Your task to perform on an android device: change the clock display to show seconds Image 0: 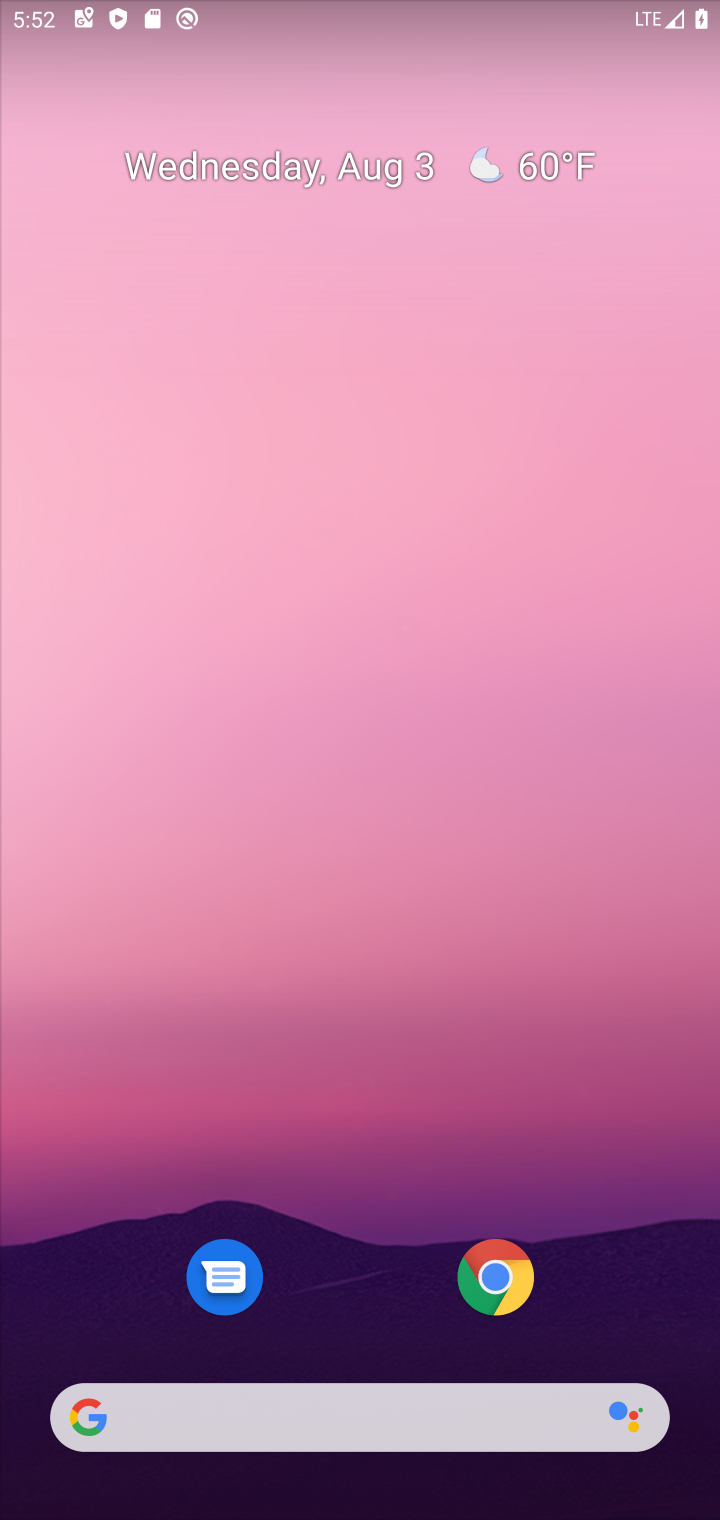
Step 0: drag from (287, 1140) to (487, 228)
Your task to perform on an android device: change the clock display to show seconds Image 1: 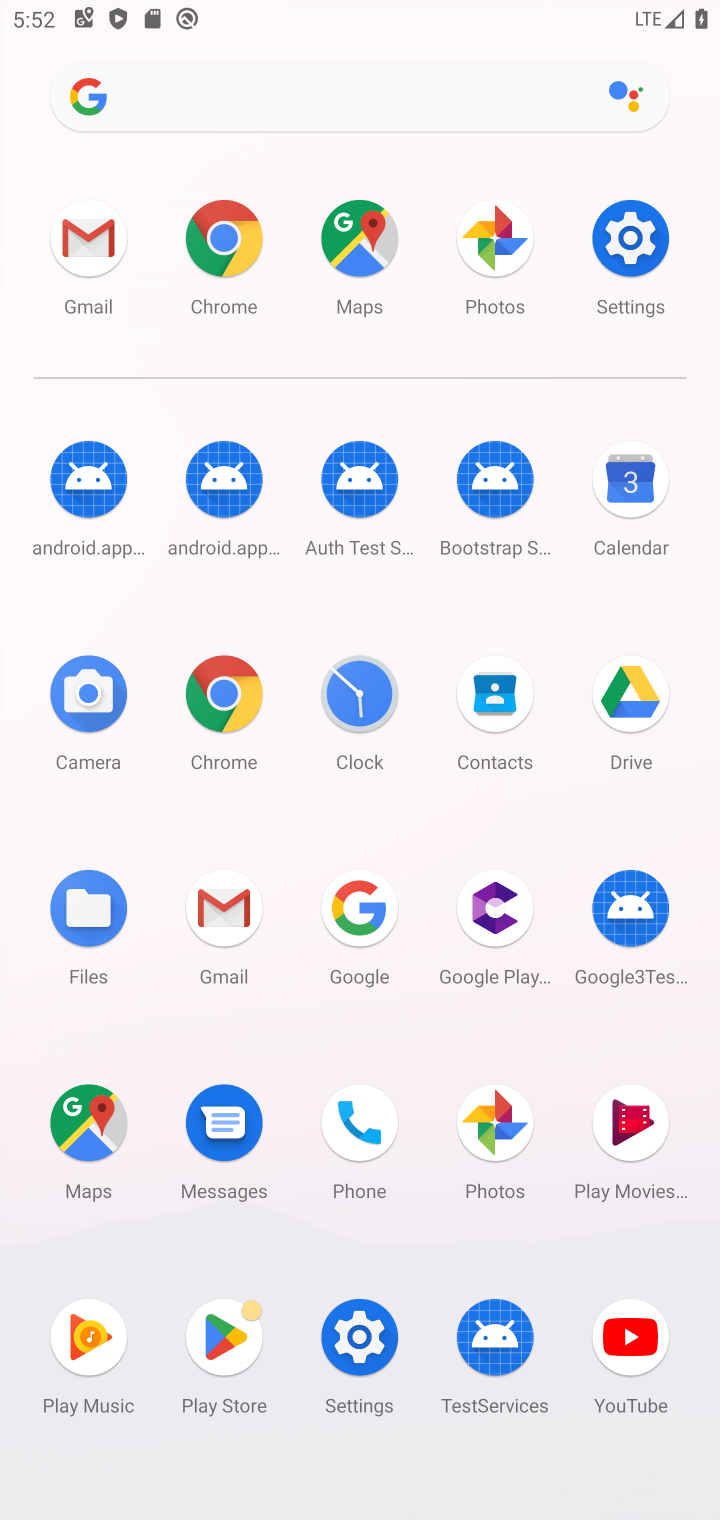
Step 1: click (377, 701)
Your task to perform on an android device: change the clock display to show seconds Image 2: 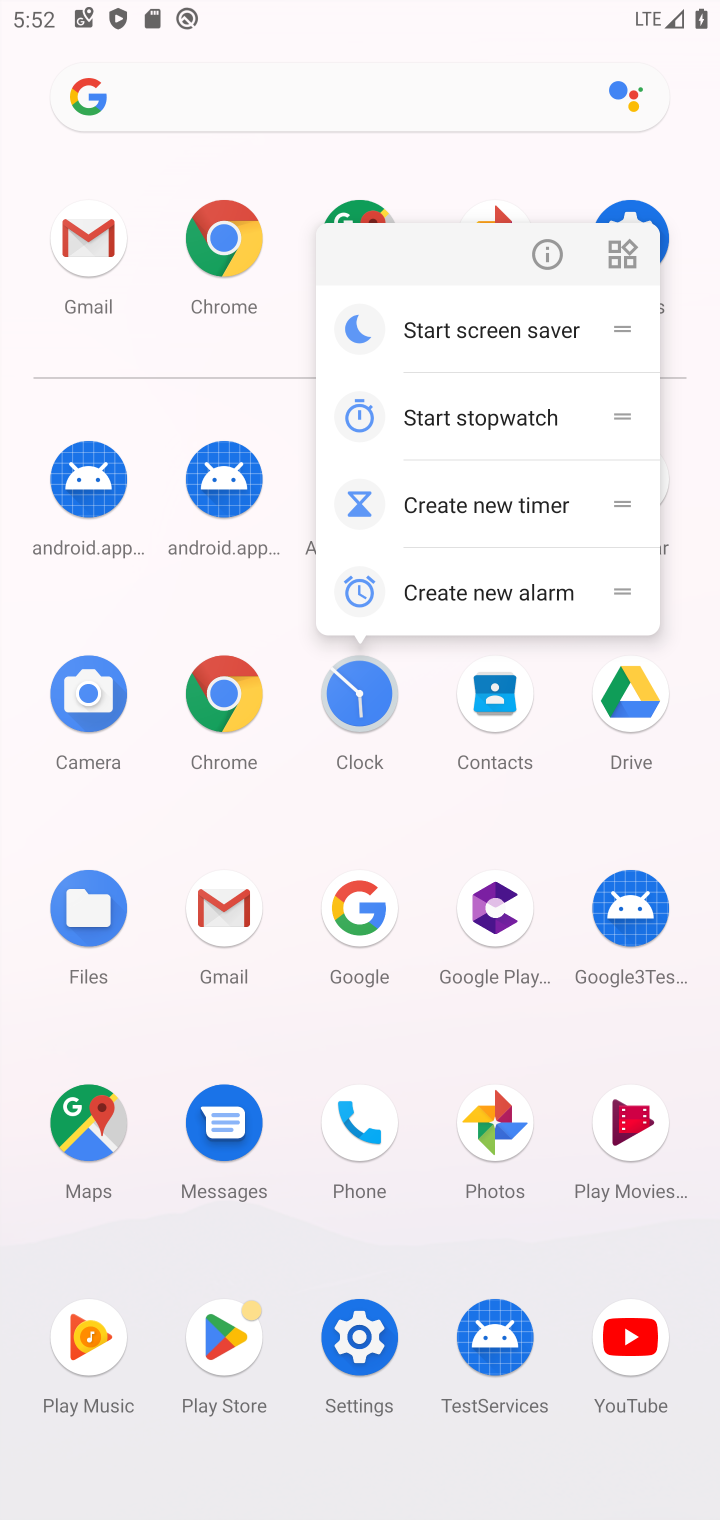
Step 2: click (392, 669)
Your task to perform on an android device: change the clock display to show seconds Image 3: 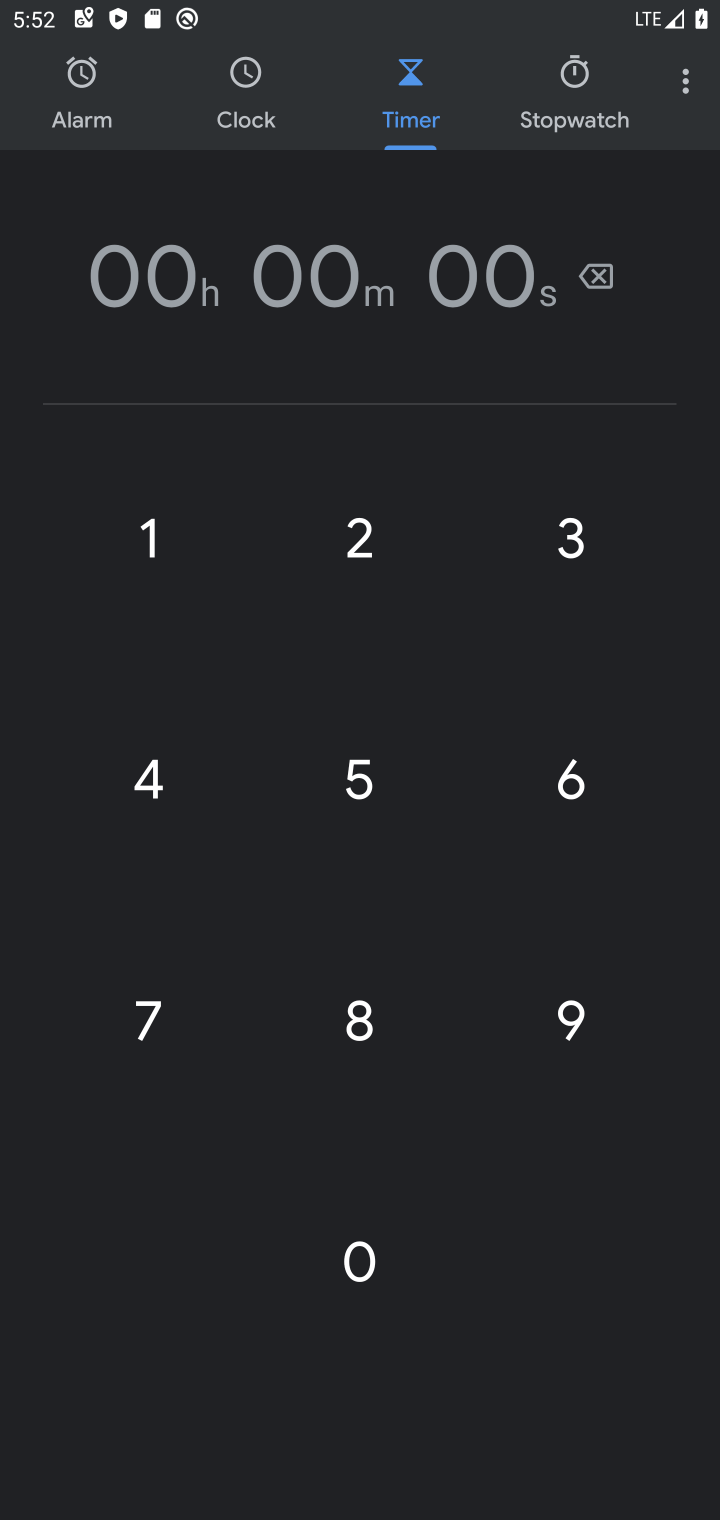
Step 3: click (691, 85)
Your task to perform on an android device: change the clock display to show seconds Image 4: 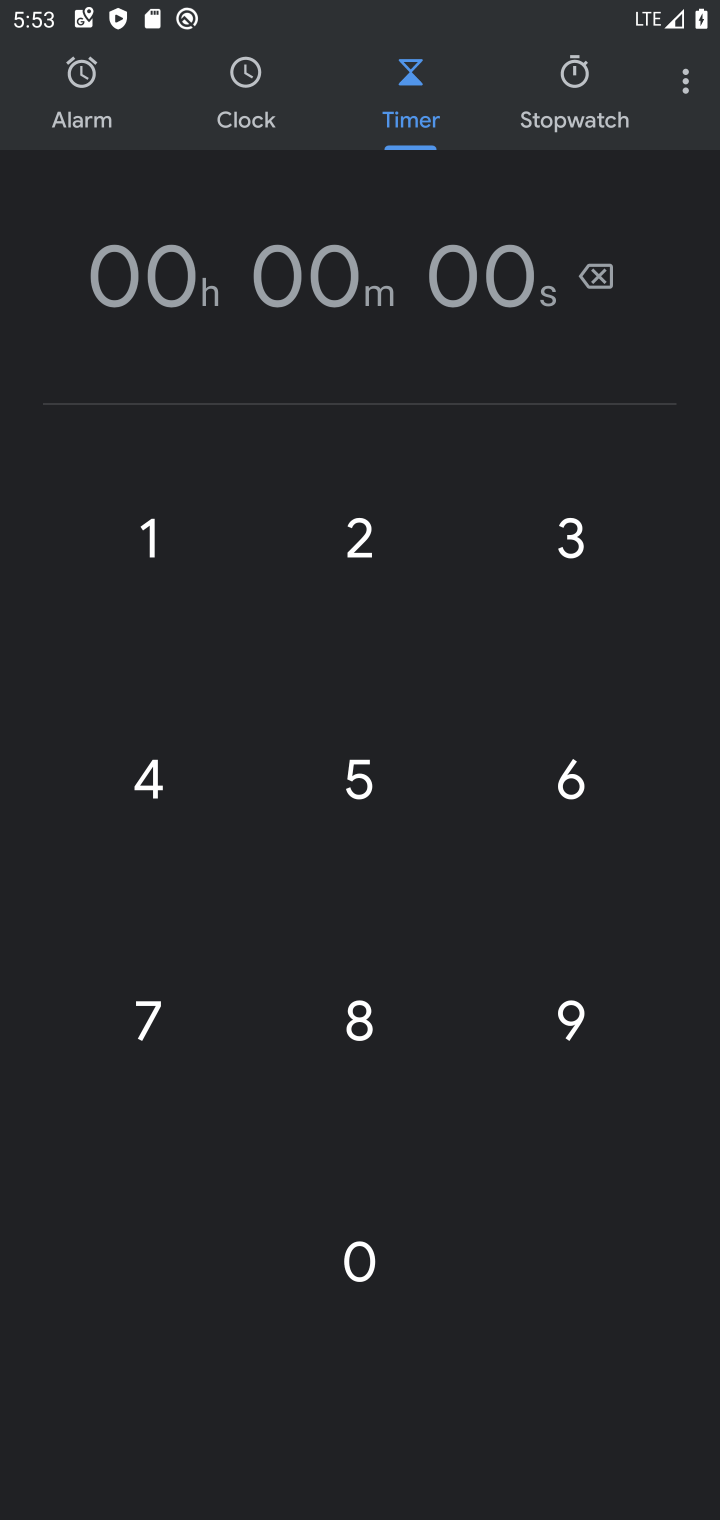
Step 4: click (680, 98)
Your task to perform on an android device: change the clock display to show seconds Image 5: 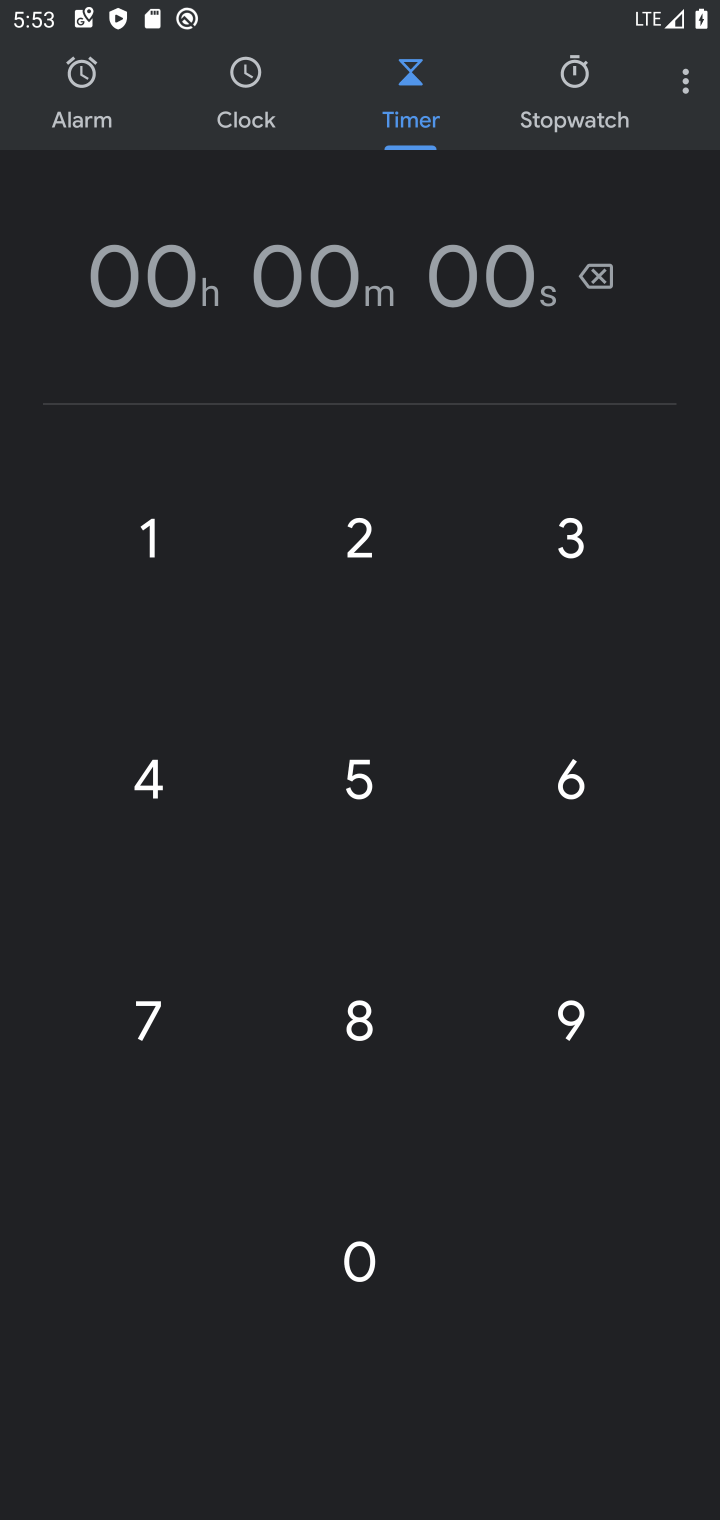
Step 5: click (687, 76)
Your task to perform on an android device: change the clock display to show seconds Image 6: 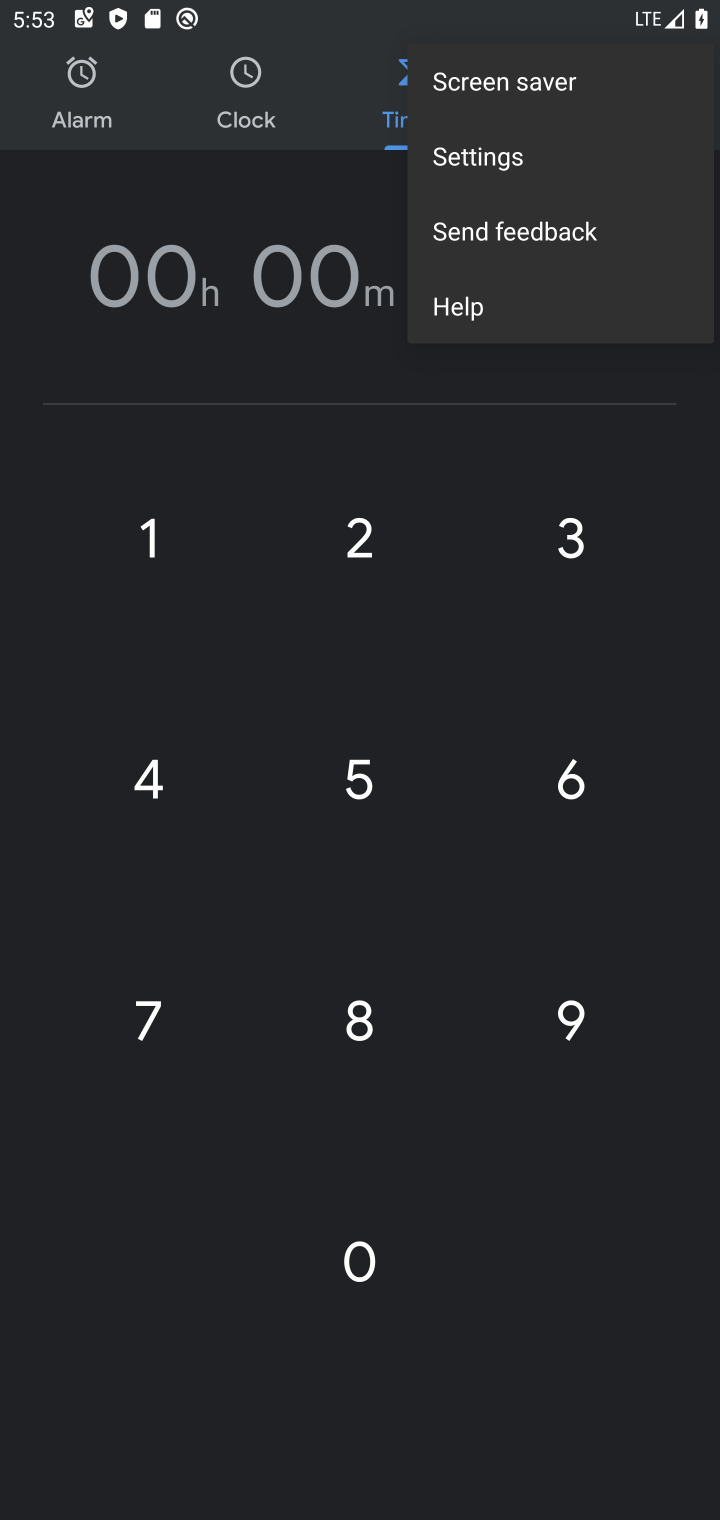
Step 6: click (523, 157)
Your task to perform on an android device: change the clock display to show seconds Image 7: 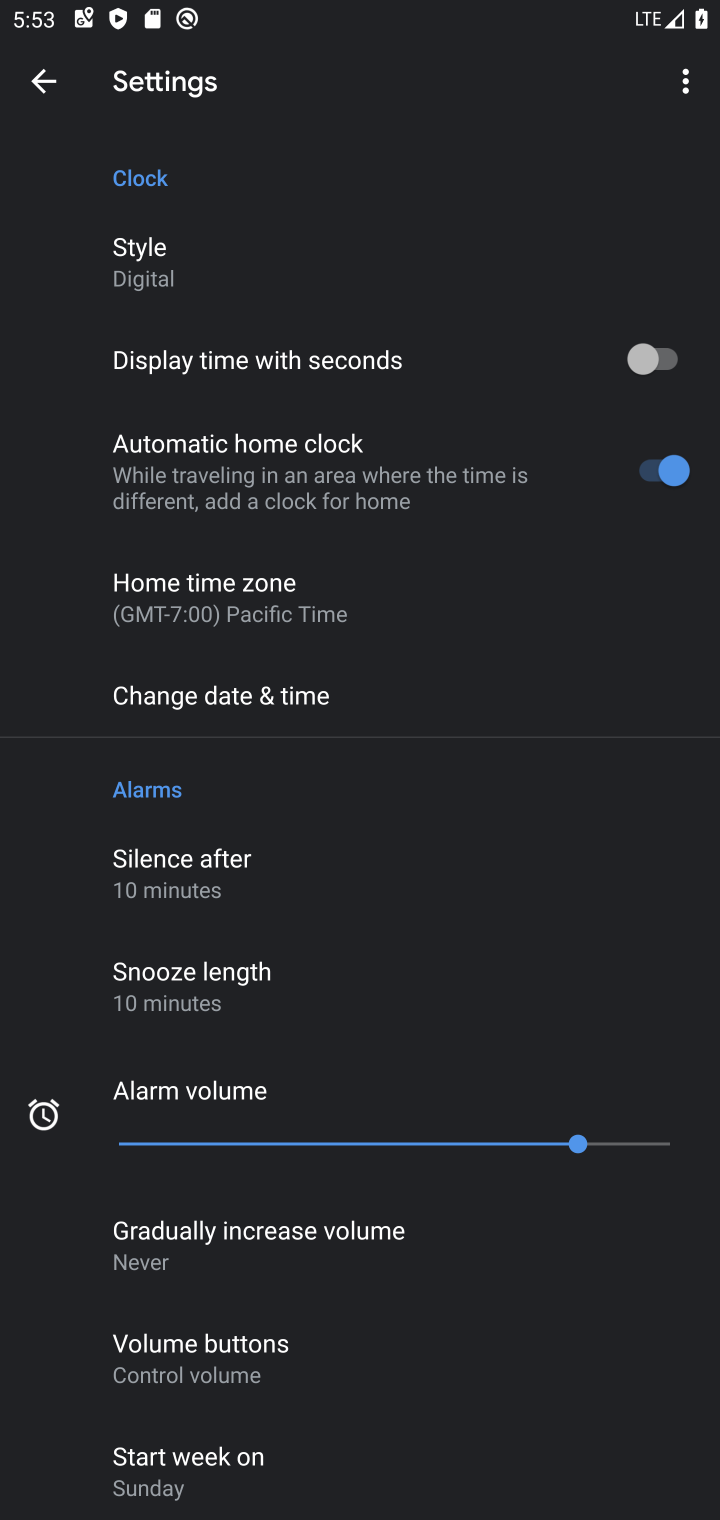
Step 7: click (212, 275)
Your task to perform on an android device: change the clock display to show seconds Image 8: 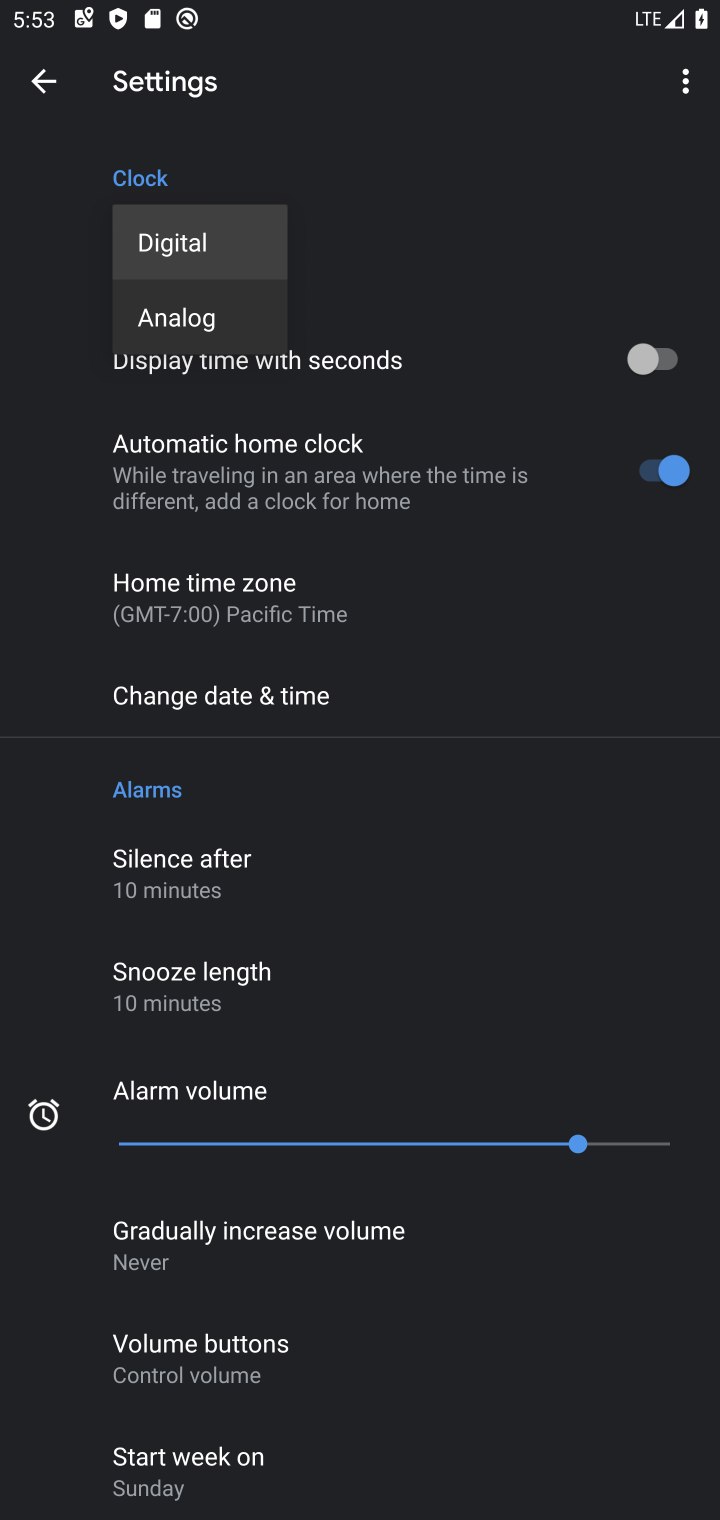
Step 8: click (201, 268)
Your task to perform on an android device: change the clock display to show seconds Image 9: 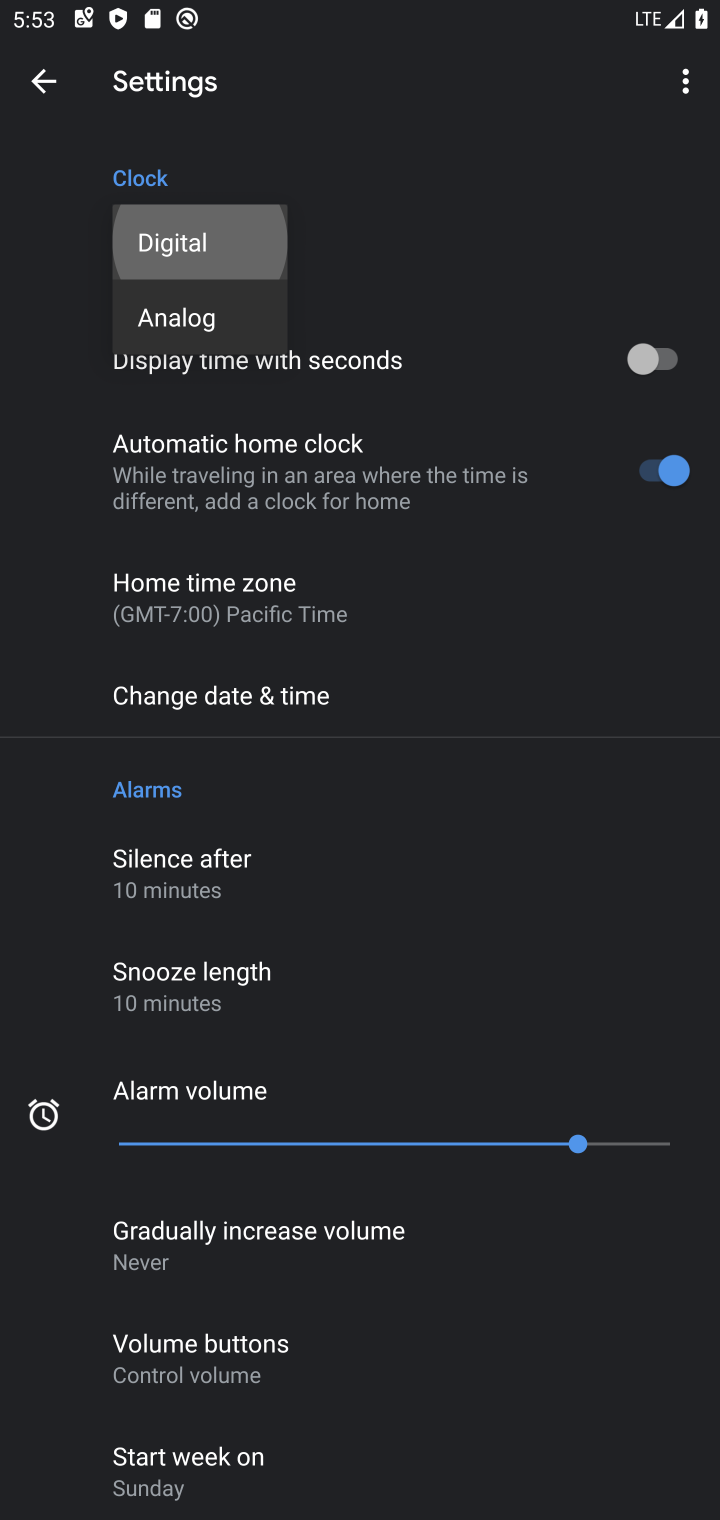
Step 9: click (664, 346)
Your task to perform on an android device: change the clock display to show seconds Image 10: 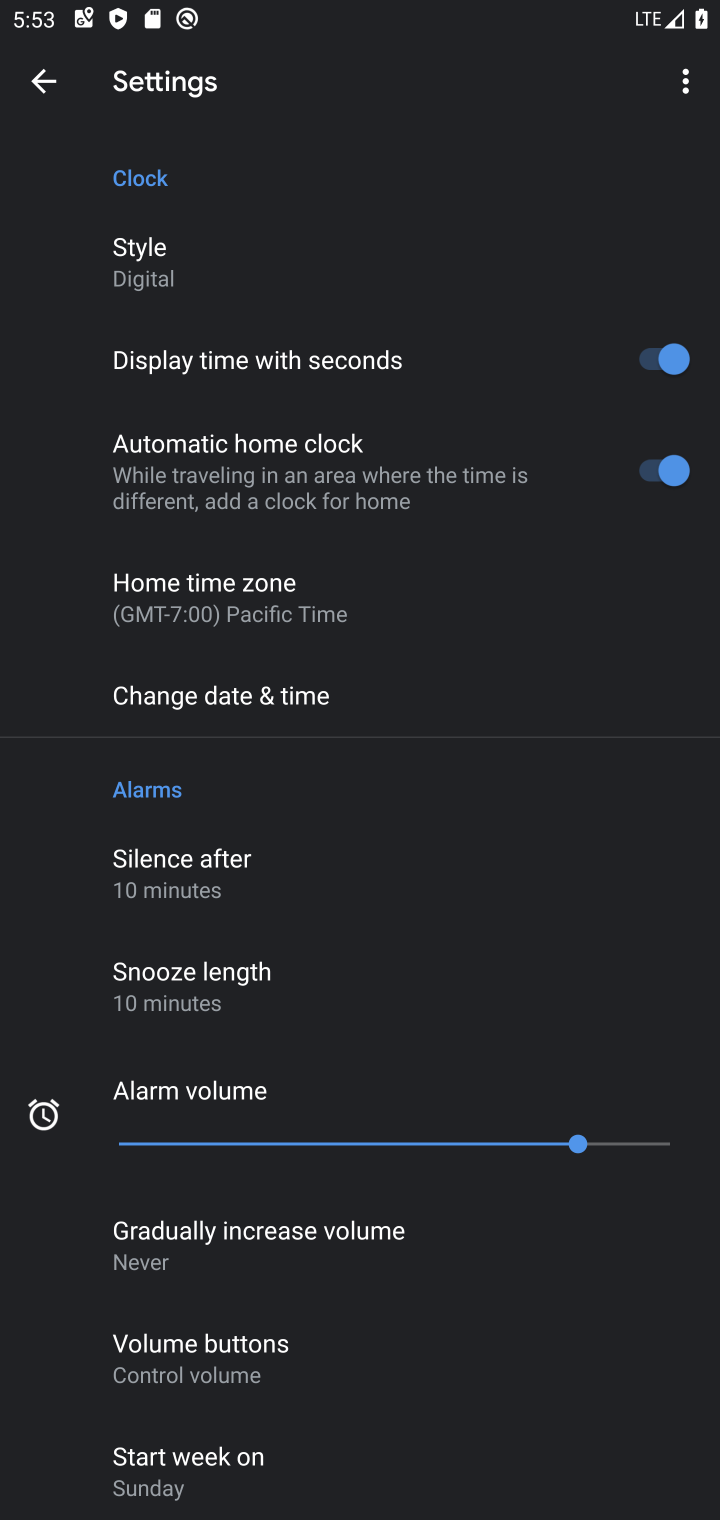
Step 10: task complete